Your task to perform on an android device: change the clock style Image 0: 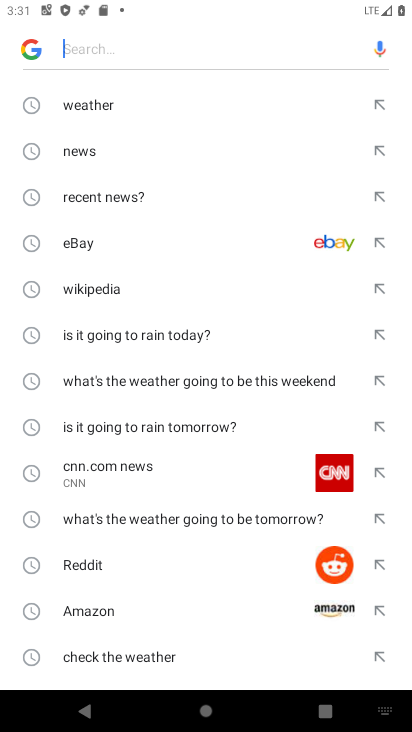
Step 0: press home button
Your task to perform on an android device: change the clock style Image 1: 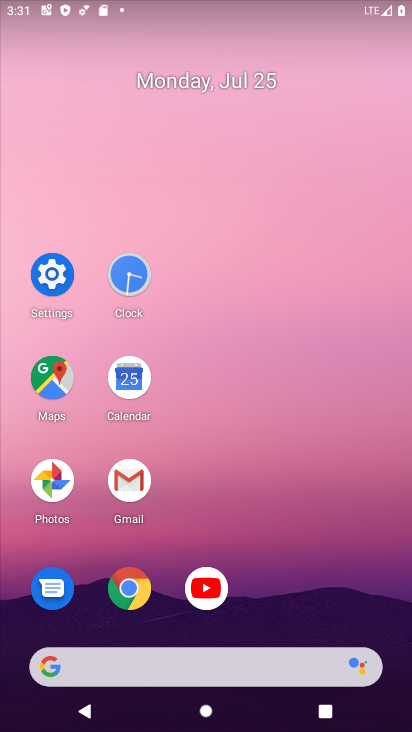
Step 1: click (123, 272)
Your task to perform on an android device: change the clock style Image 2: 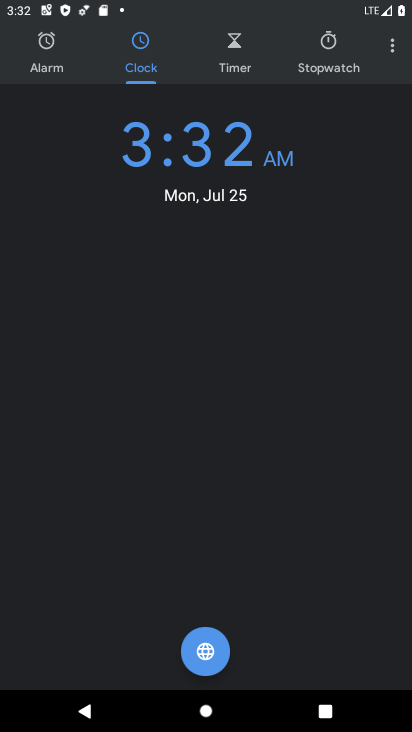
Step 2: click (397, 47)
Your task to perform on an android device: change the clock style Image 3: 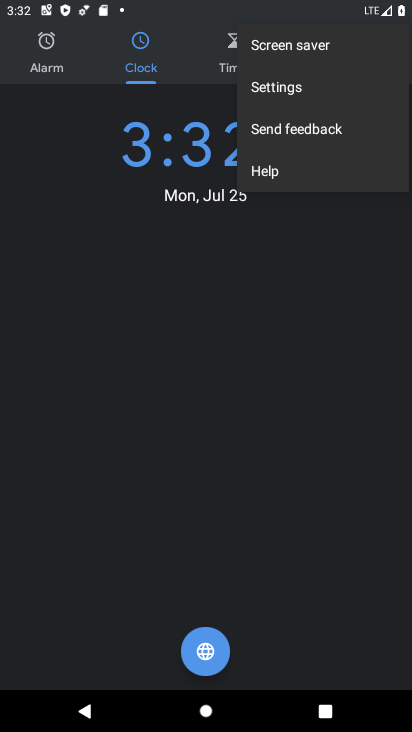
Step 3: click (286, 93)
Your task to perform on an android device: change the clock style Image 4: 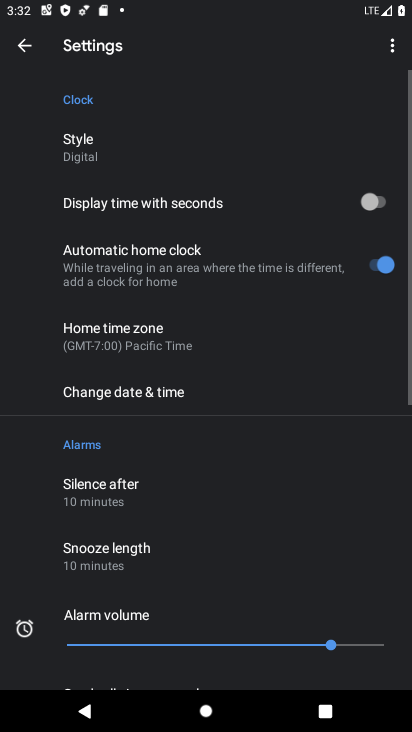
Step 4: click (76, 148)
Your task to perform on an android device: change the clock style Image 5: 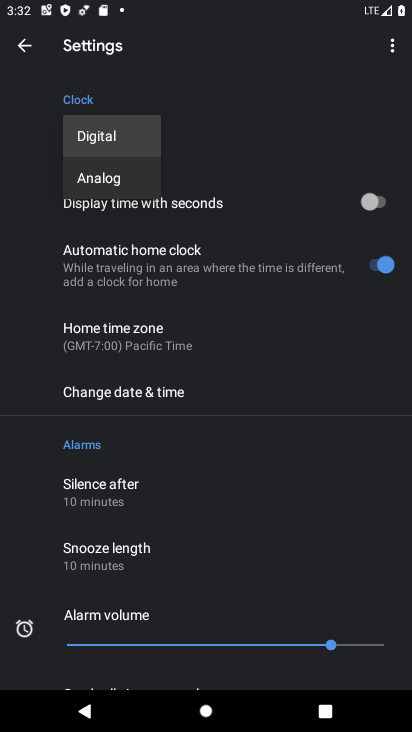
Step 5: click (119, 176)
Your task to perform on an android device: change the clock style Image 6: 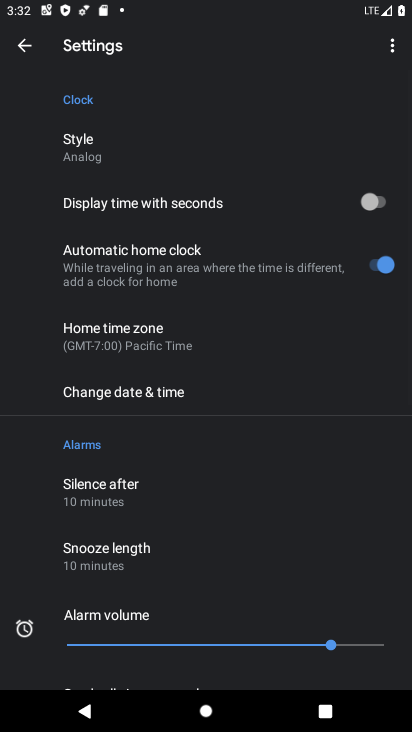
Step 6: task complete